Your task to perform on an android device: Open wifi settings Image 0: 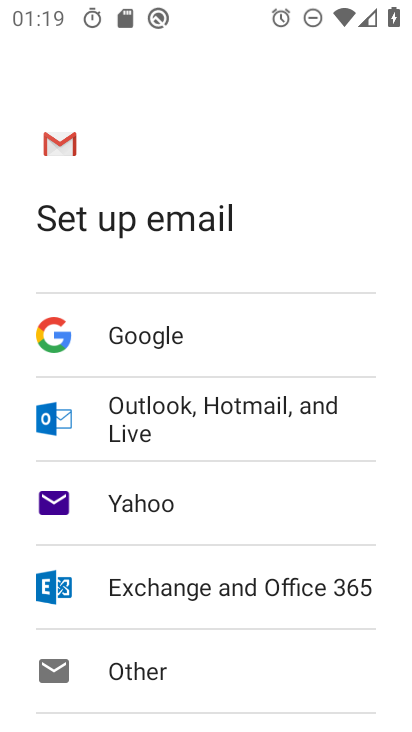
Step 0: press back button
Your task to perform on an android device: Open wifi settings Image 1: 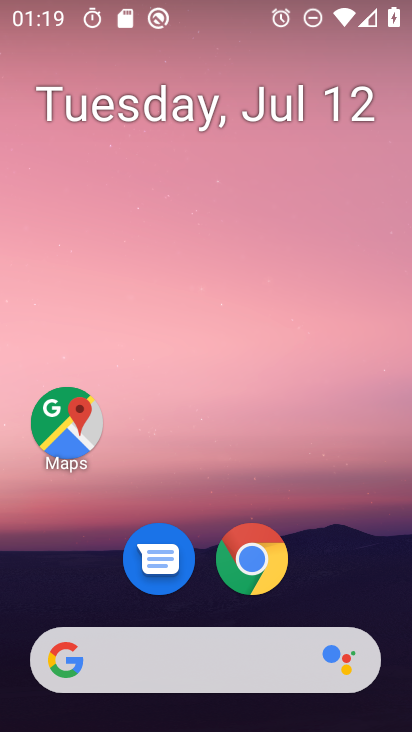
Step 1: drag from (65, 1) to (65, 430)
Your task to perform on an android device: Open wifi settings Image 2: 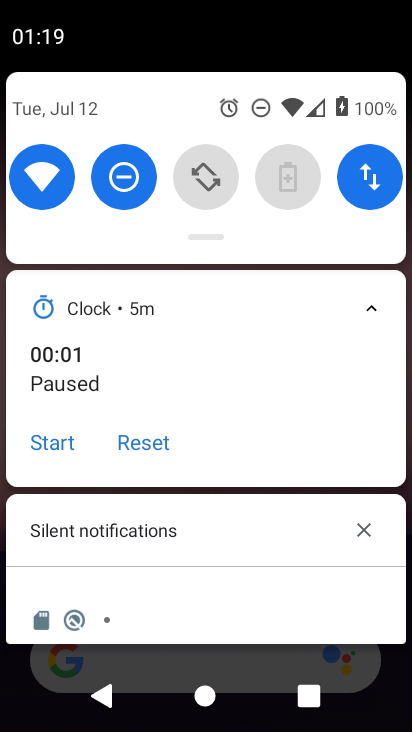
Step 2: click (47, 167)
Your task to perform on an android device: Open wifi settings Image 3: 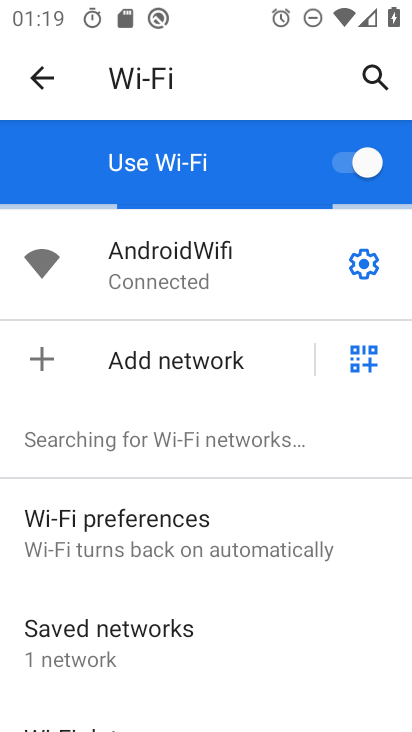
Step 3: task complete